Your task to perform on an android device: Clear the cart on ebay. Image 0: 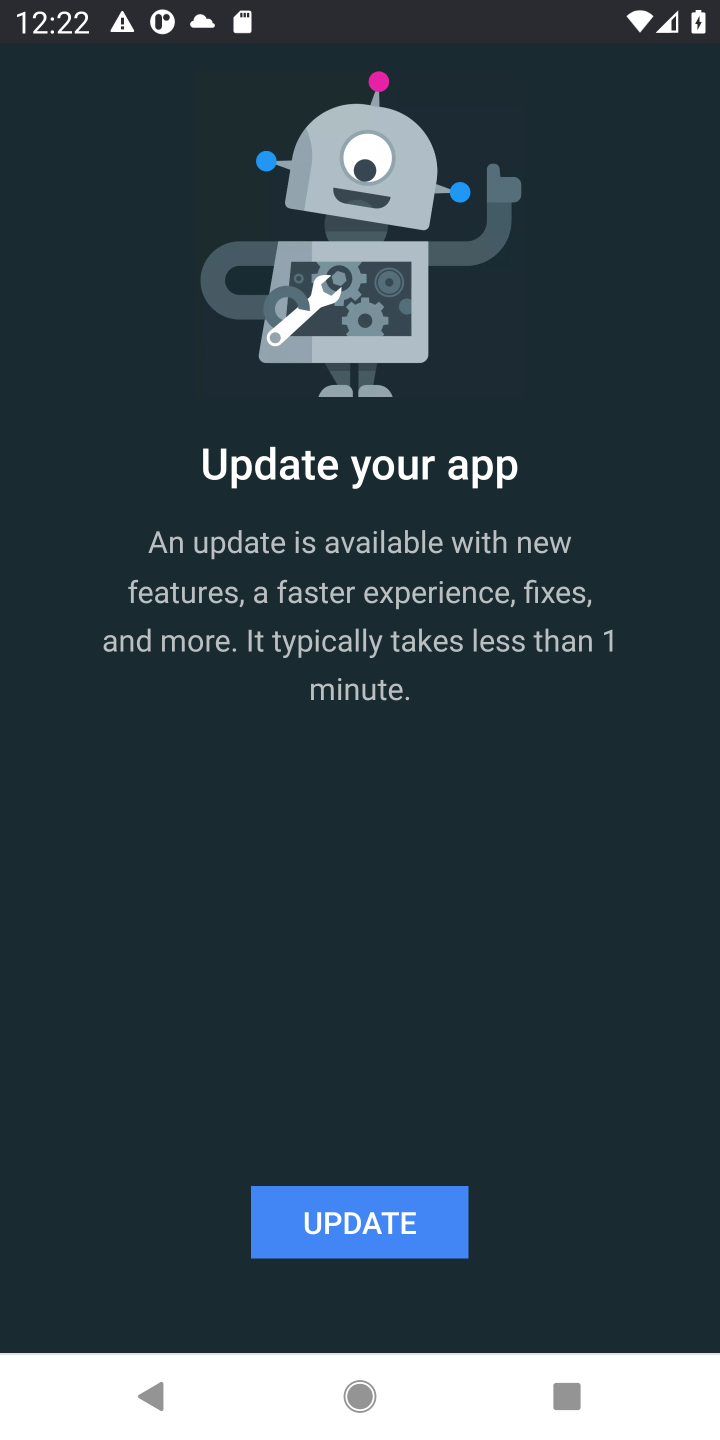
Step 0: press home button
Your task to perform on an android device: Clear the cart on ebay. Image 1: 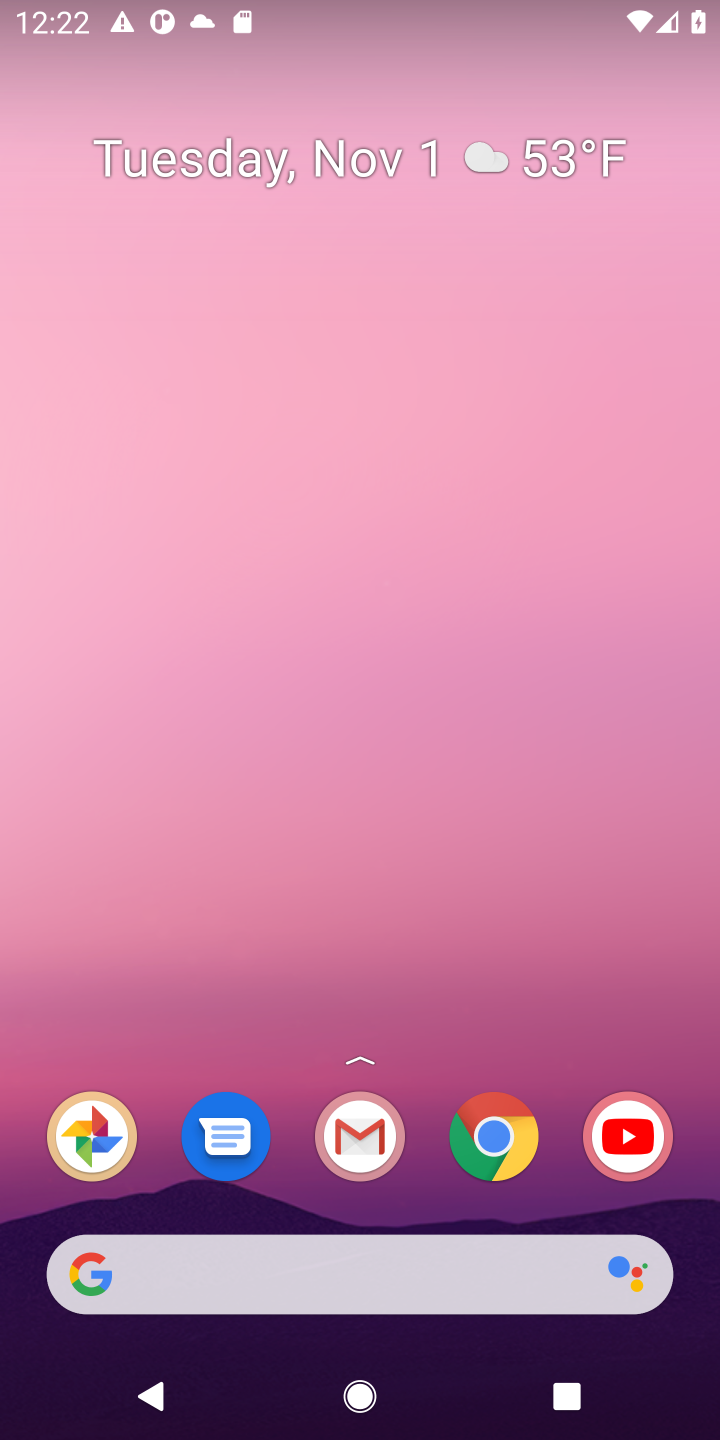
Step 1: click (169, 1261)
Your task to perform on an android device: Clear the cart on ebay. Image 2: 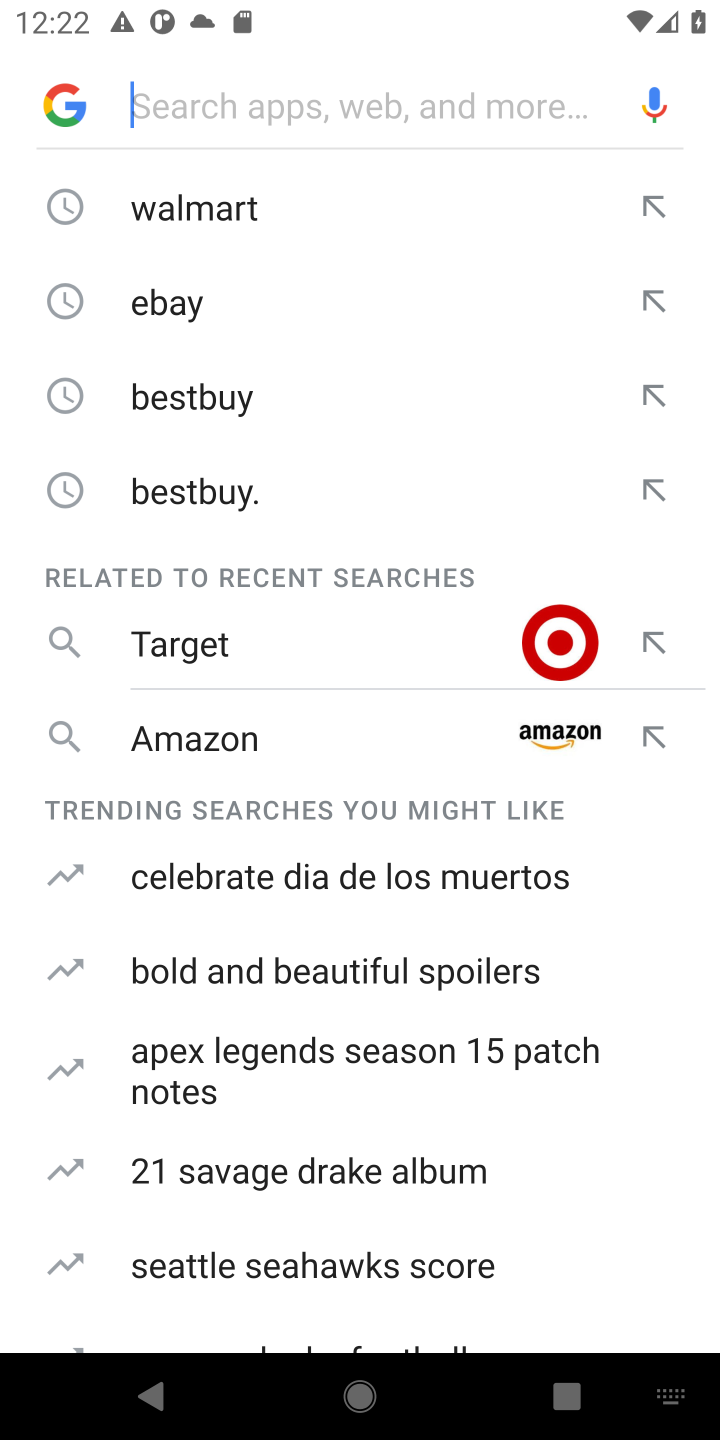
Step 2: type "ebay"
Your task to perform on an android device: Clear the cart on ebay. Image 3: 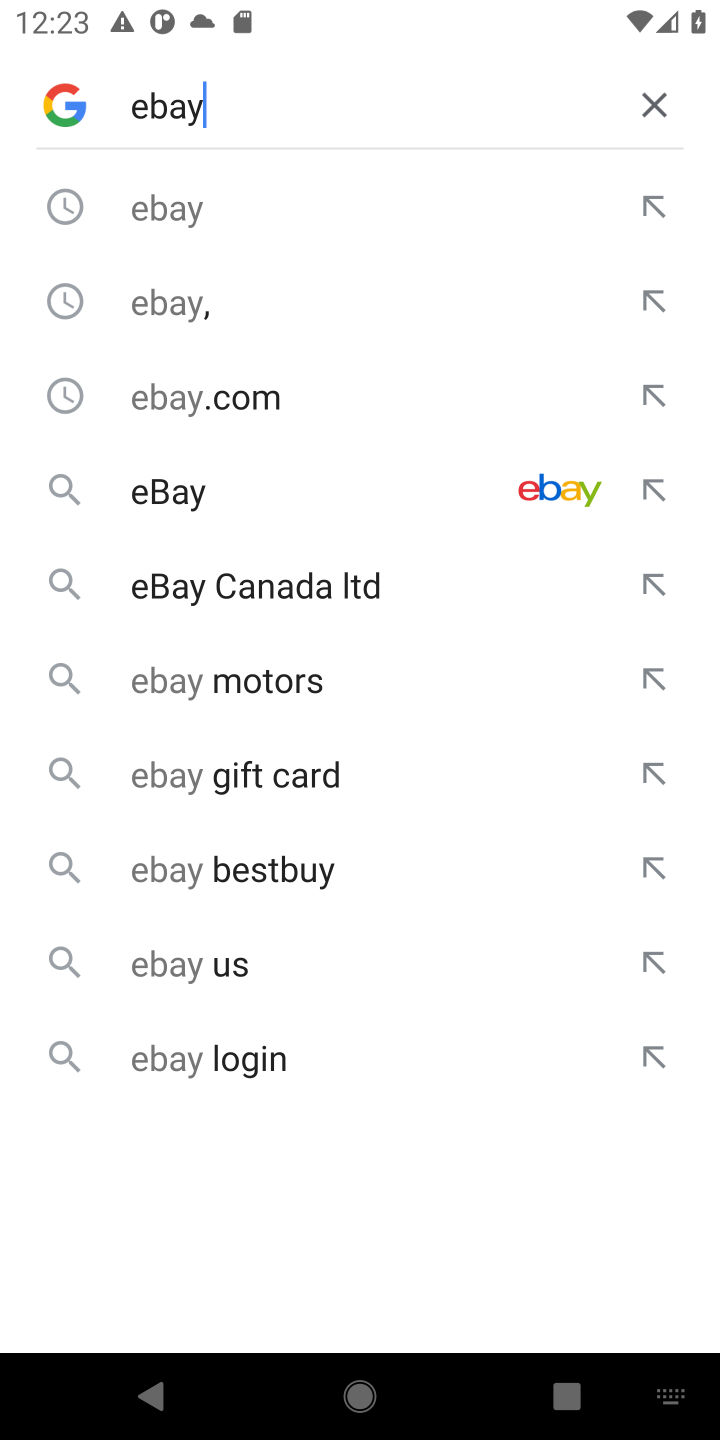
Step 3: press enter
Your task to perform on an android device: Clear the cart on ebay. Image 4: 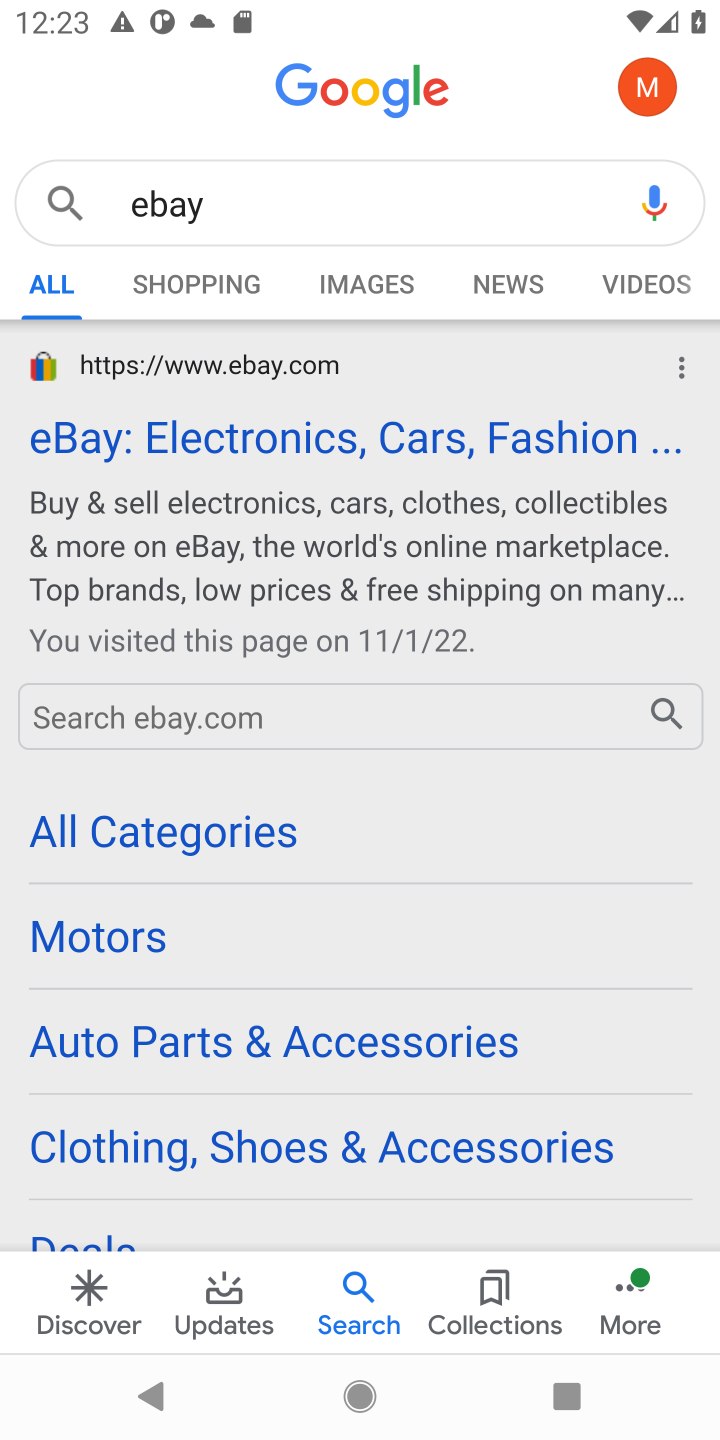
Step 4: click (197, 427)
Your task to perform on an android device: Clear the cart on ebay. Image 5: 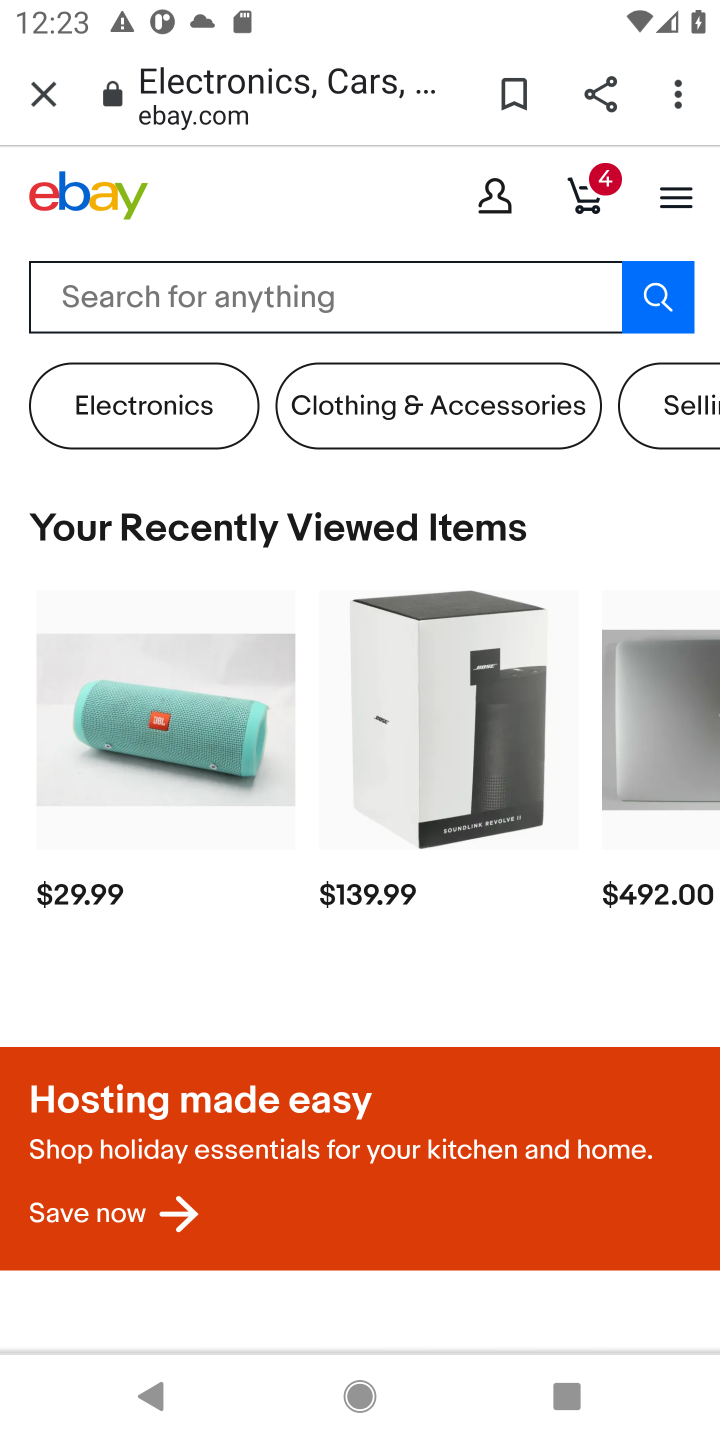
Step 5: click (594, 184)
Your task to perform on an android device: Clear the cart on ebay. Image 6: 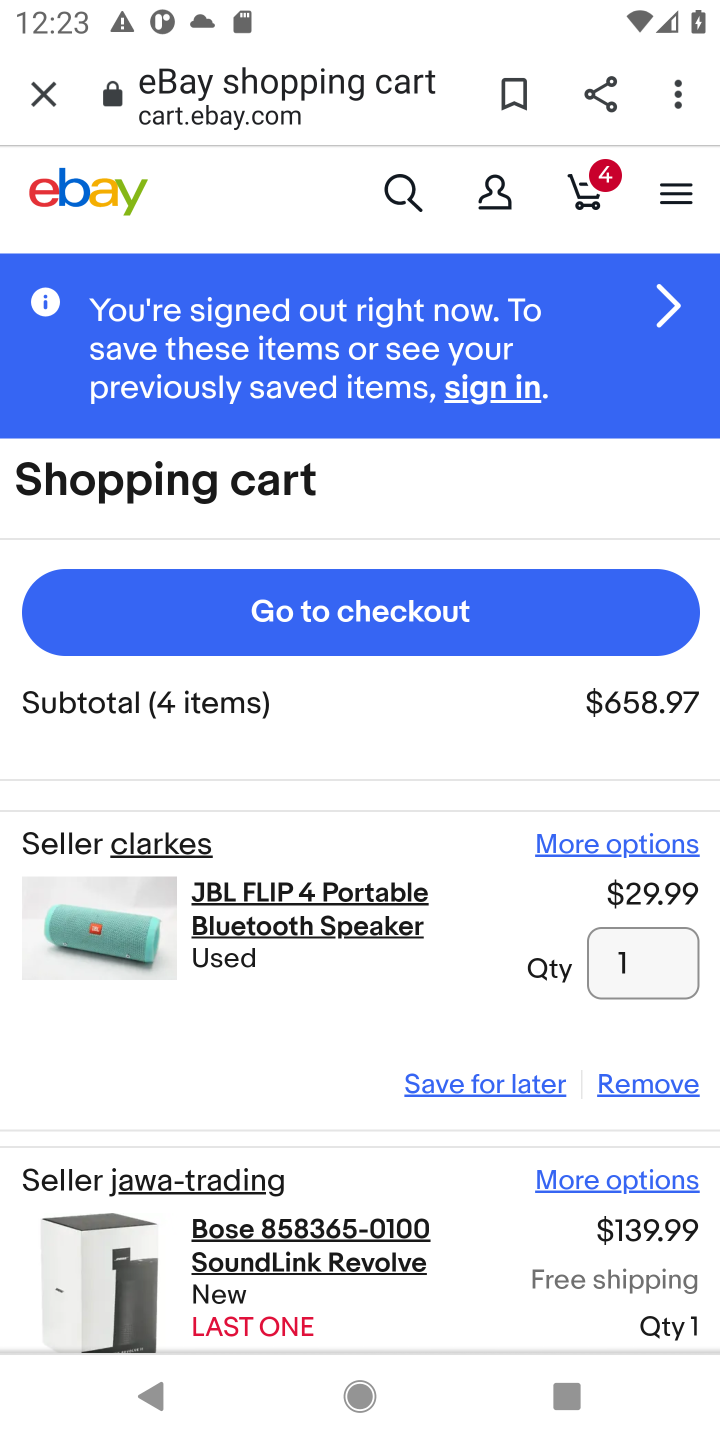
Step 6: click (666, 1087)
Your task to perform on an android device: Clear the cart on ebay. Image 7: 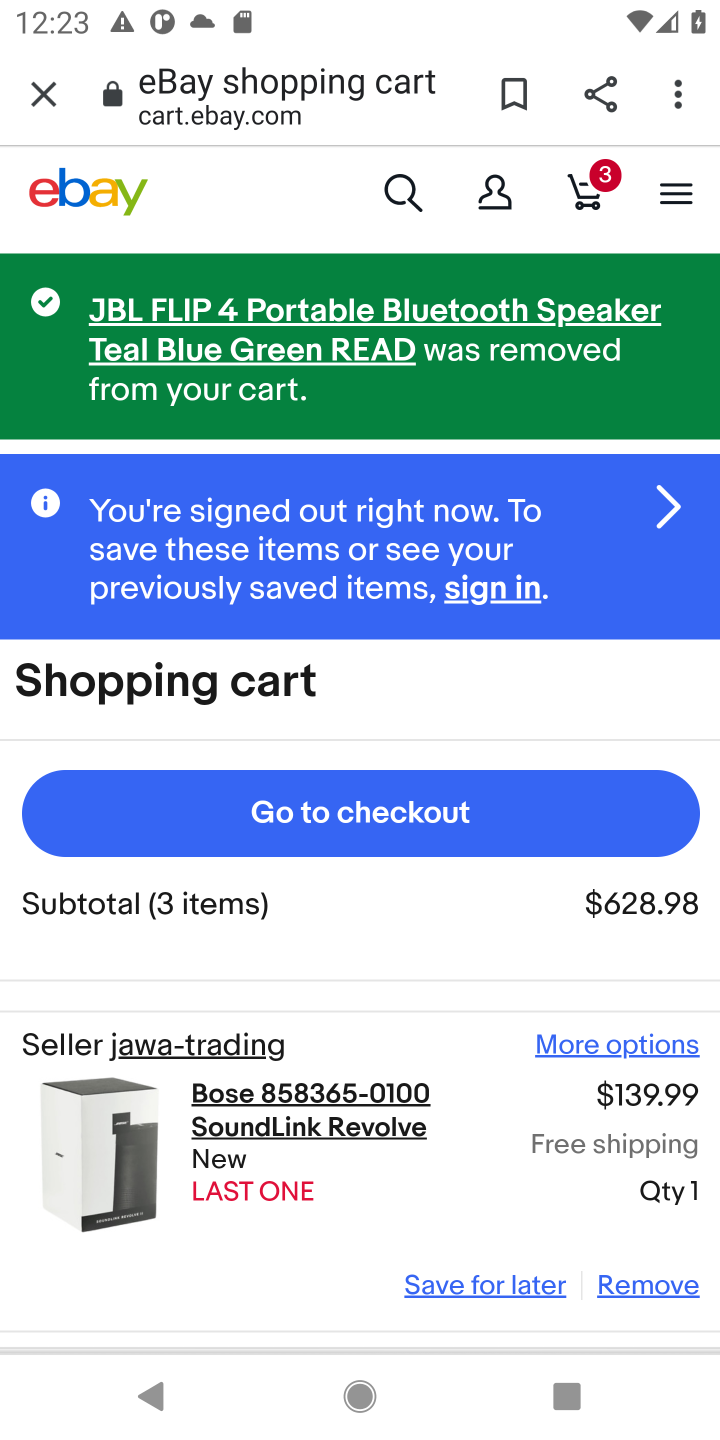
Step 7: click (614, 1288)
Your task to perform on an android device: Clear the cart on ebay. Image 8: 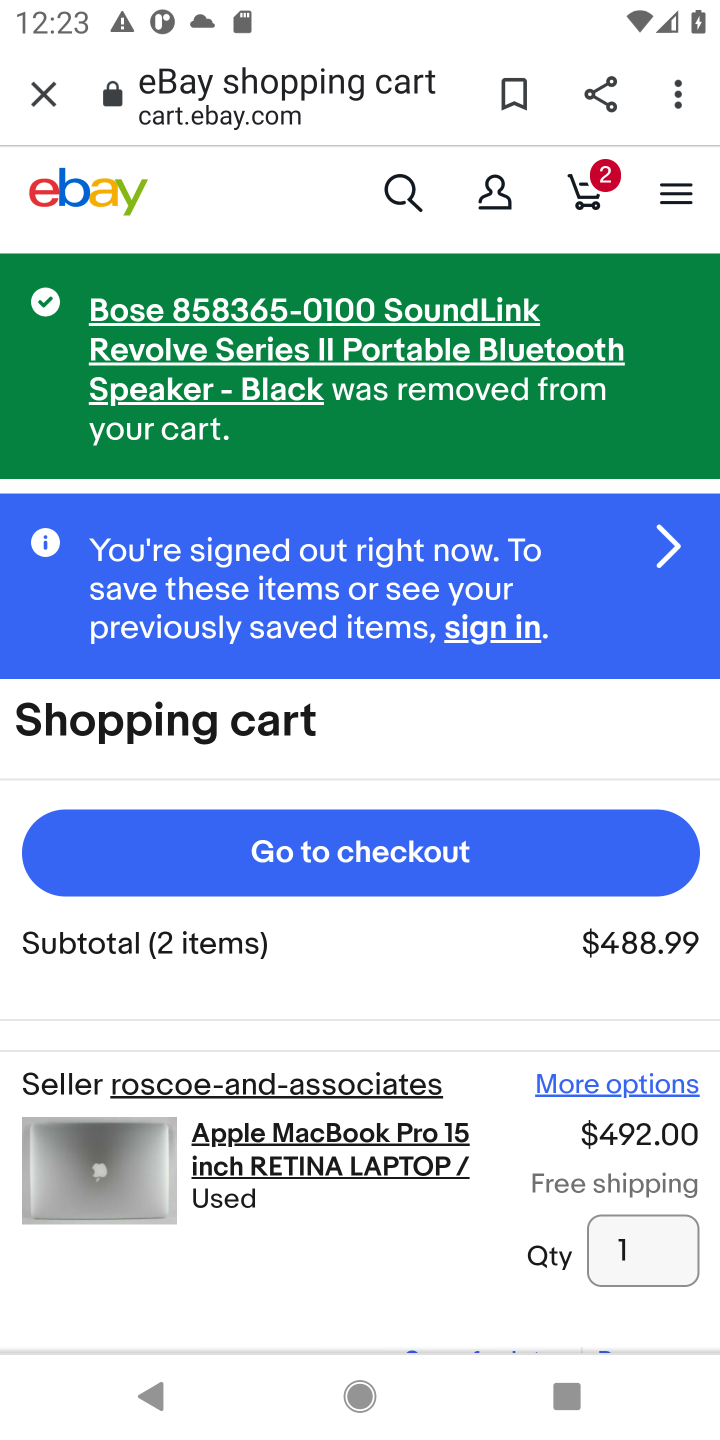
Step 8: drag from (442, 1209) to (425, 808)
Your task to perform on an android device: Clear the cart on ebay. Image 9: 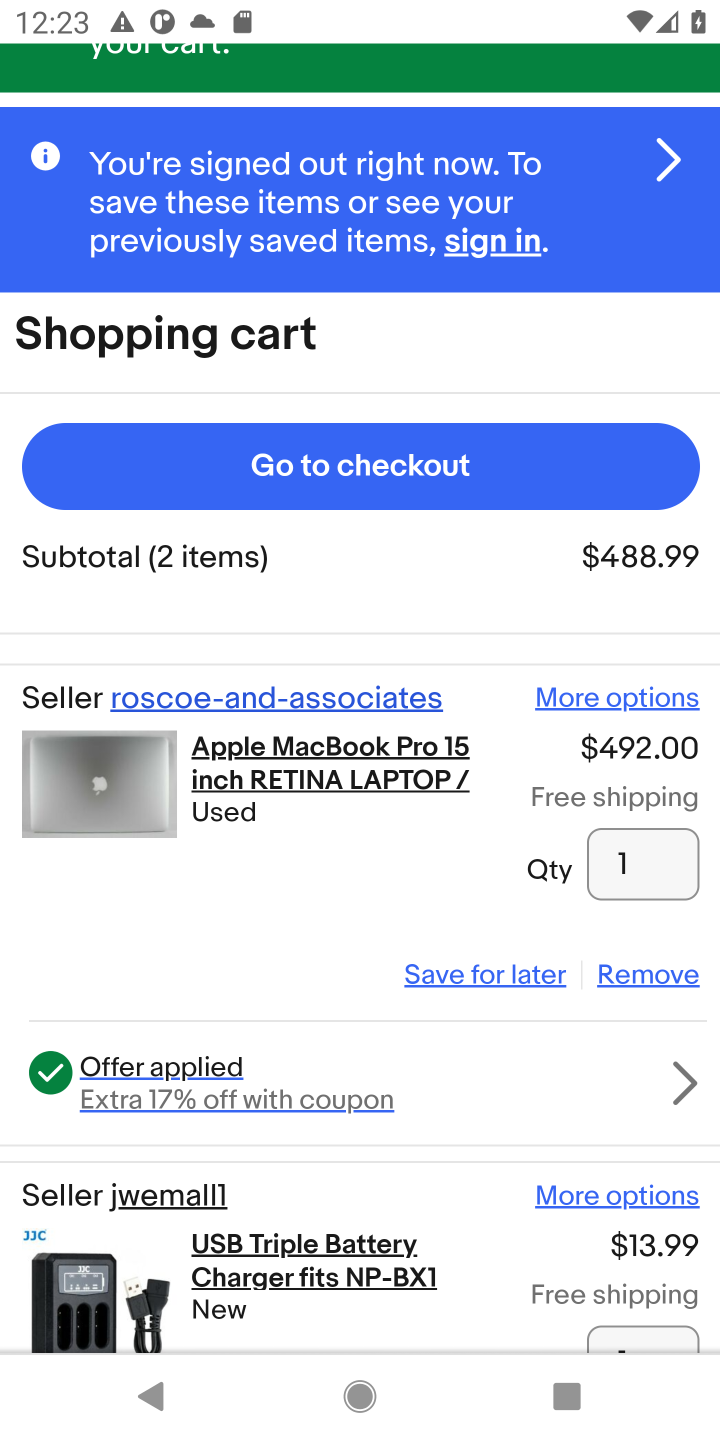
Step 9: click (657, 970)
Your task to perform on an android device: Clear the cart on ebay. Image 10: 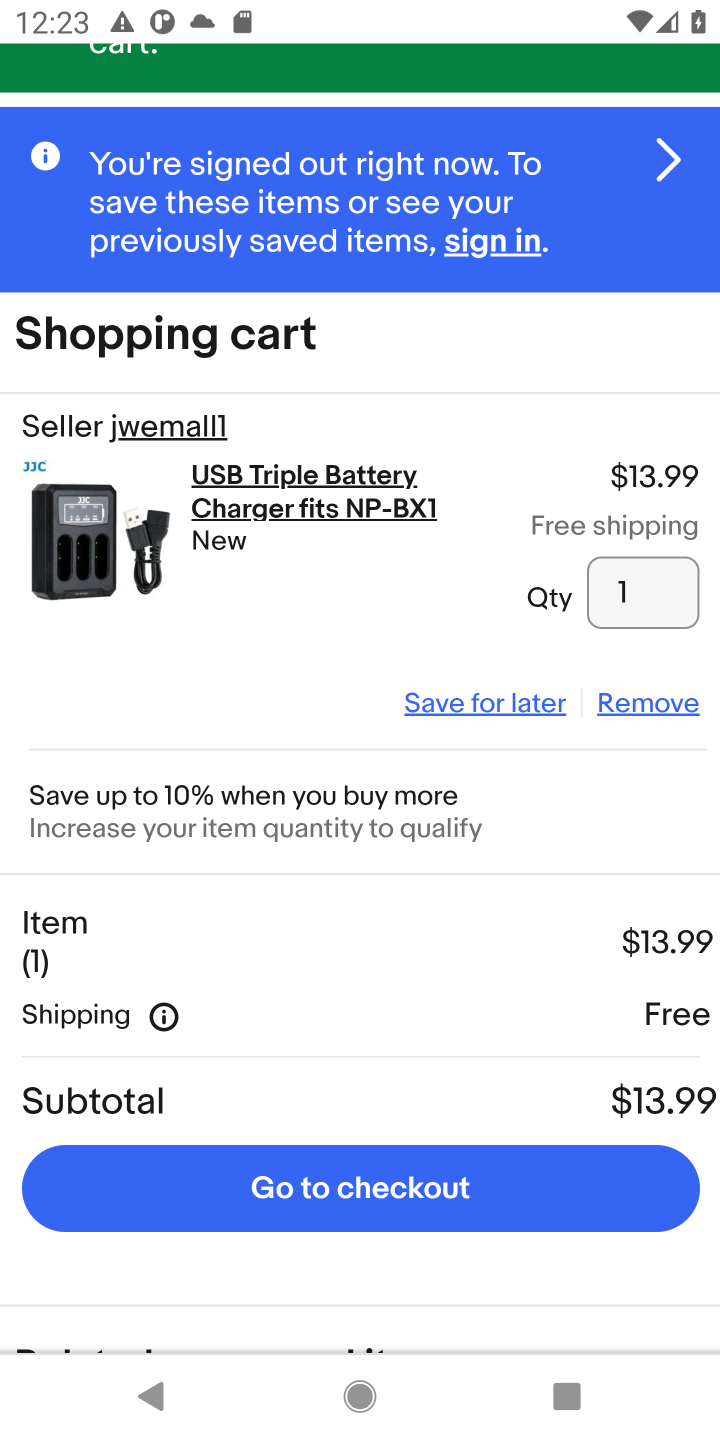
Step 10: click (662, 697)
Your task to perform on an android device: Clear the cart on ebay. Image 11: 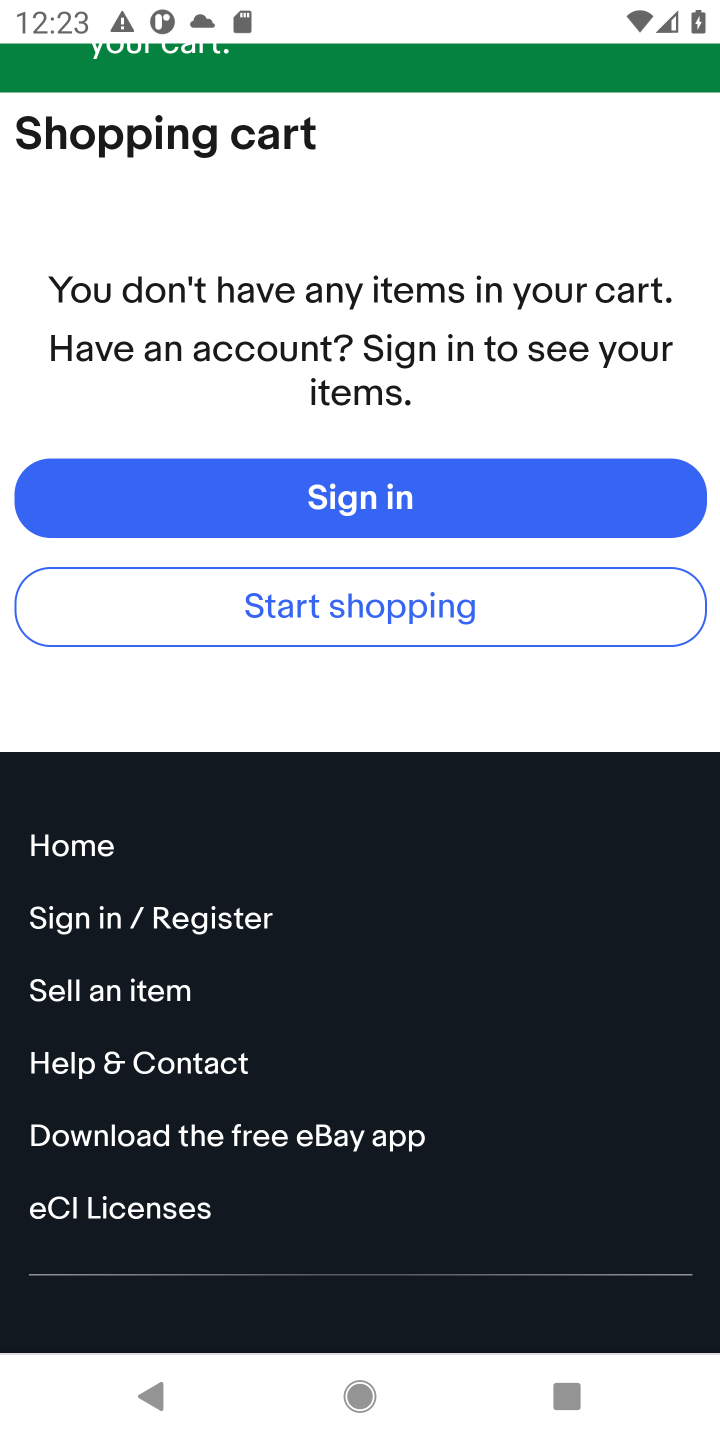
Step 11: task complete